Your task to perform on an android device: Go to accessibility settings Image 0: 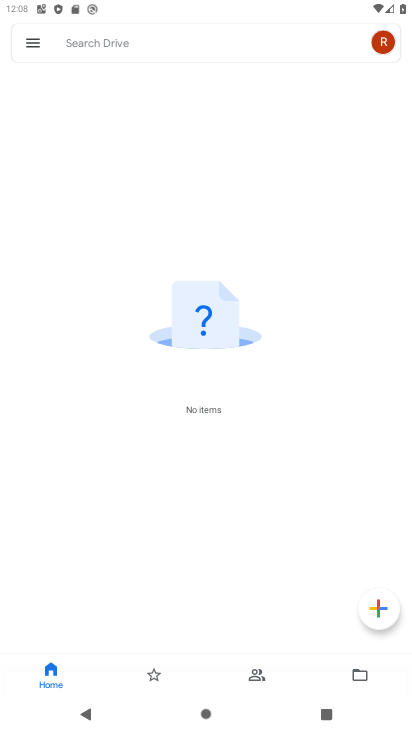
Step 0: press home button
Your task to perform on an android device: Go to accessibility settings Image 1: 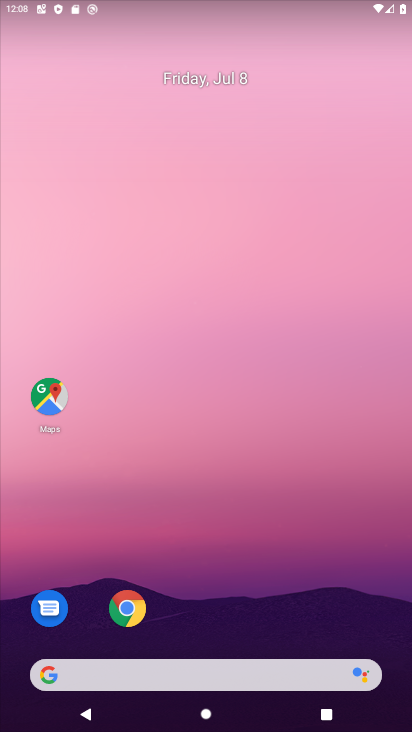
Step 1: drag from (270, 646) to (243, 1)
Your task to perform on an android device: Go to accessibility settings Image 2: 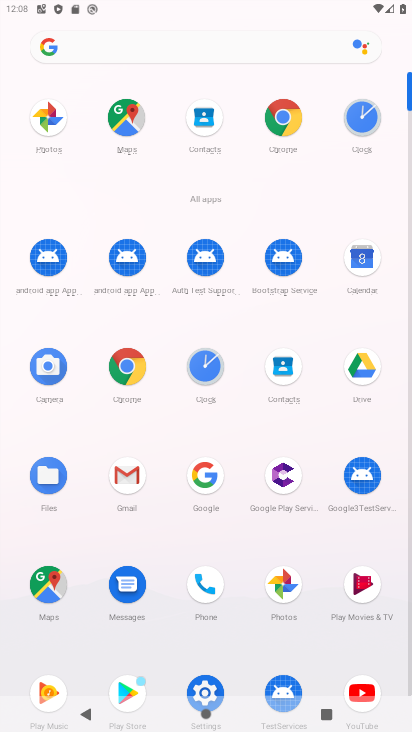
Step 2: click (409, 689)
Your task to perform on an android device: Go to accessibility settings Image 3: 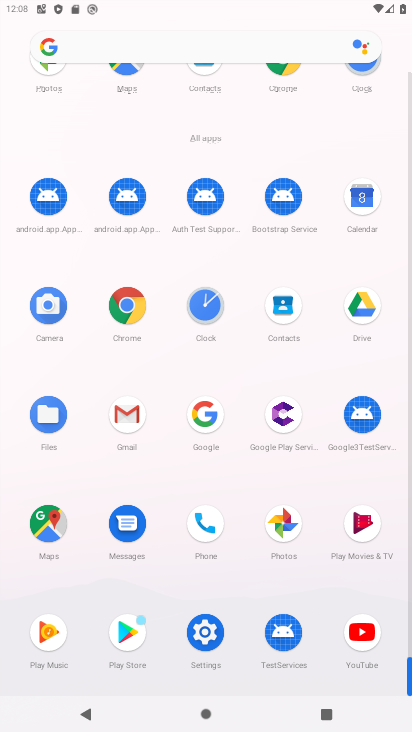
Step 3: click (214, 642)
Your task to perform on an android device: Go to accessibility settings Image 4: 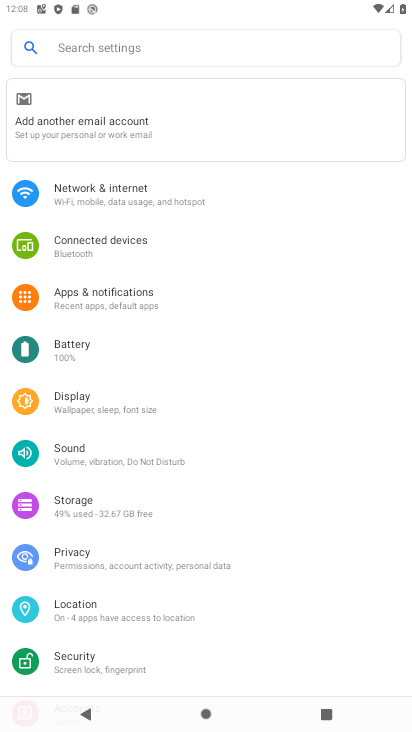
Step 4: drag from (244, 617) to (389, 193)
Your task to perform on an android device: Go to accessibility settings Image 5: 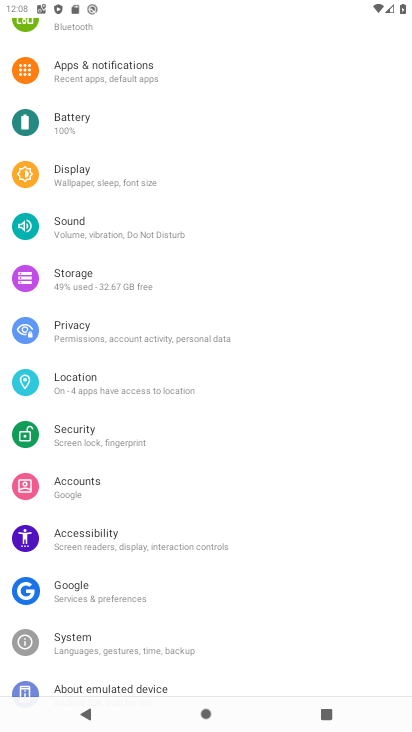
Step 5: drag from (253, 568) to (196, 70)
Your task to perform on an android device: Go to accessibility settings Image 6: 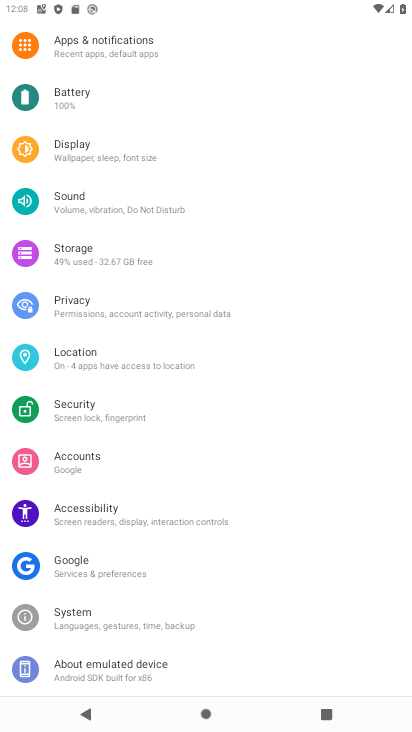
Step 6: click (66, 514)
Your task to perform on an android device: Go to accessibility settings Image 7: 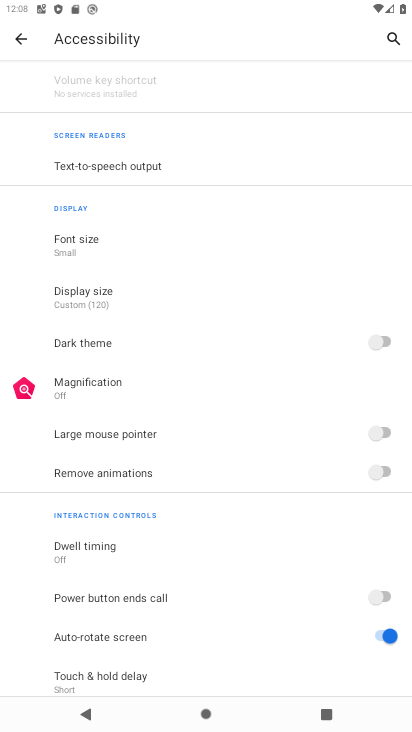
Step 7: task complete